Your task to perform on an android device: Open Chrome and go to the settings page Image 0: 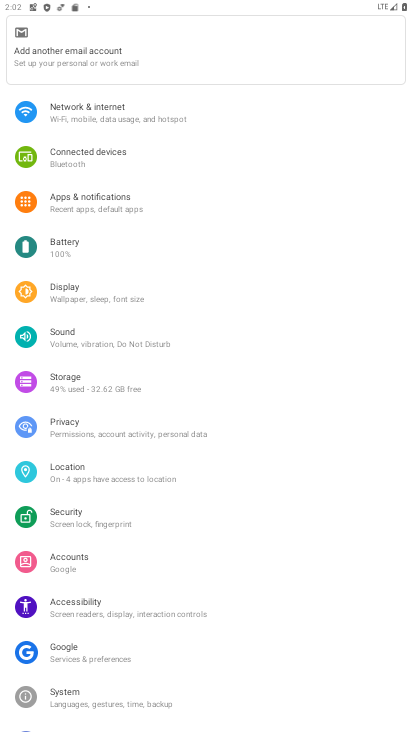
Step 0: press home button
Your task to perform on an android device: Open Chrome and go to the settings page Image 1: 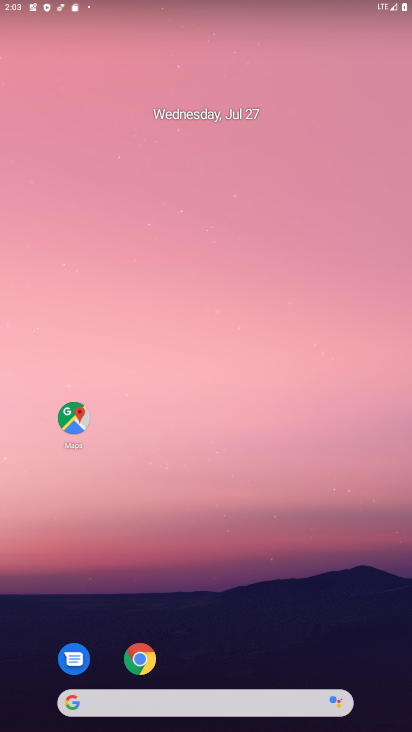
Step 1: click (142, 660)
Your task to perform on an android device: Open Chrome and go to the settings page Image 2: 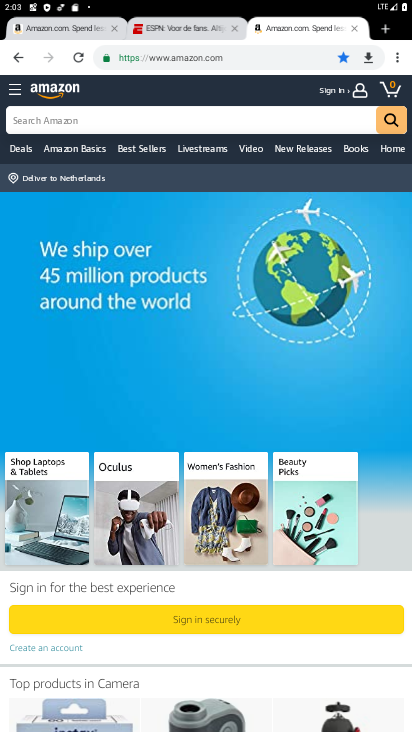
Step 2: click (400, 60)
Your task to perform on an android device: Open Chrome and go to the settings page Image 3: 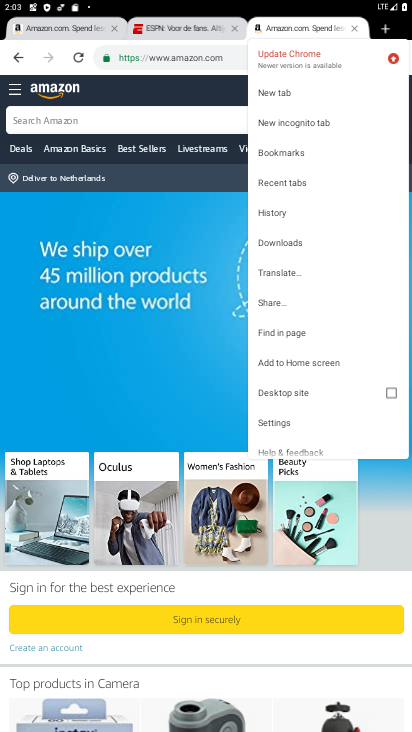
Step 3: click (283, 420)
Your task to perform on an android device: Open Chrome and go to the settings page Image 4: 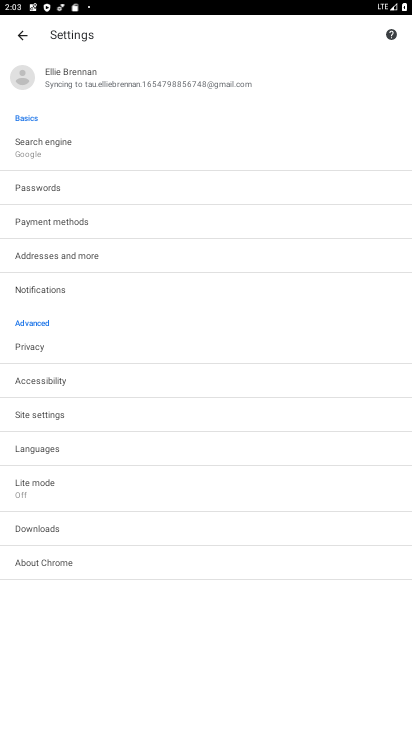
Step 4: task complete